Your task to perform on an android device: Do I have any events today? Image 0: 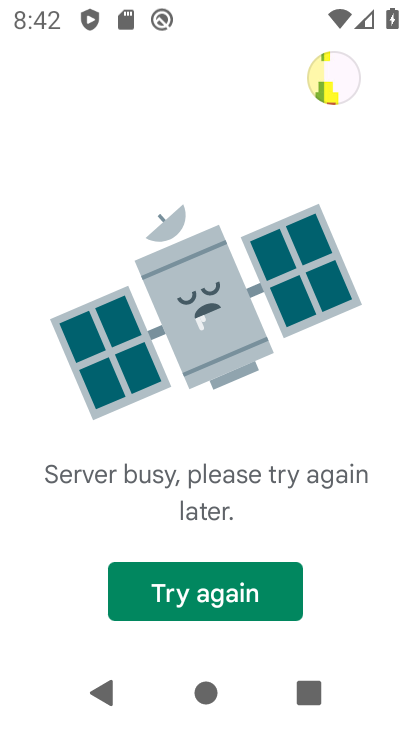
Step 0: press home button
Your task to perform on an android device: Do I have any events today? Image 1: 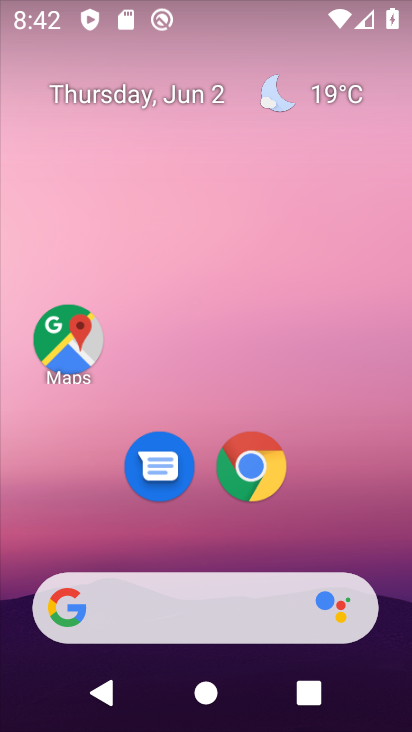
Step 1: drag from (163, 528) to (150, 51)
Your task to perform on an android device: Do I have any events today? Image 2: 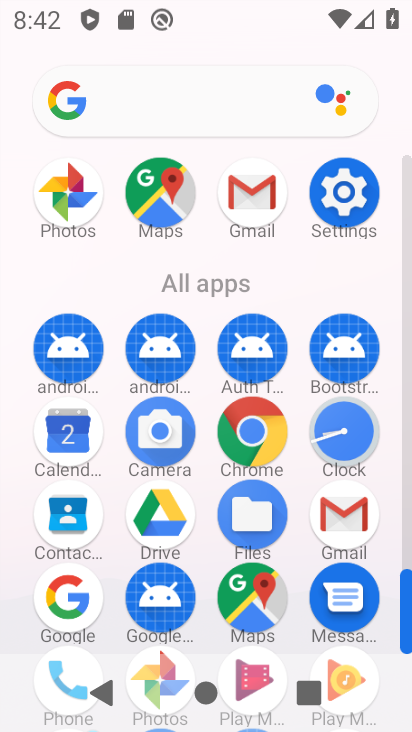
Step 2: click (61, 464)
Your task to perform on an android device: Do I have any events today? Image 3: 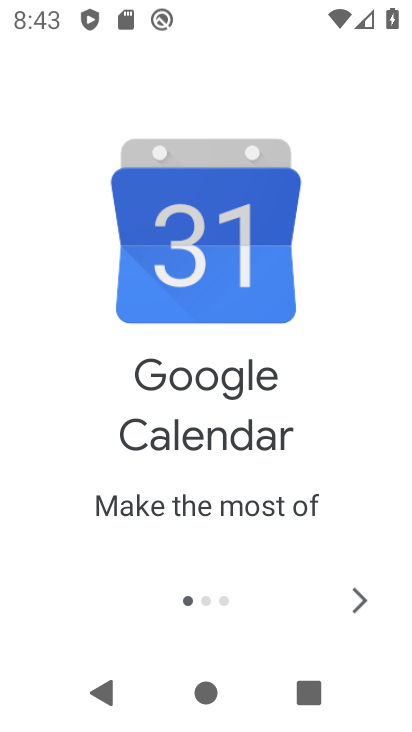
Step 3: click (361, 608)
Your task to perform on an android device: Do I have any events today? Image 4: 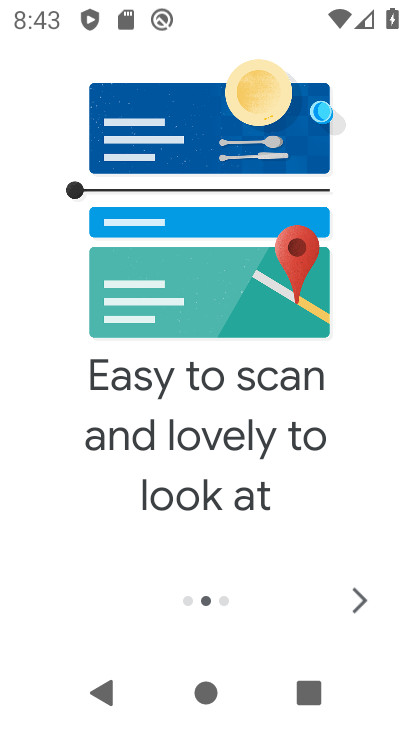
Step 4: click (353, 588)
Your task to perform on an android device: Do I have any events today? Image 5: 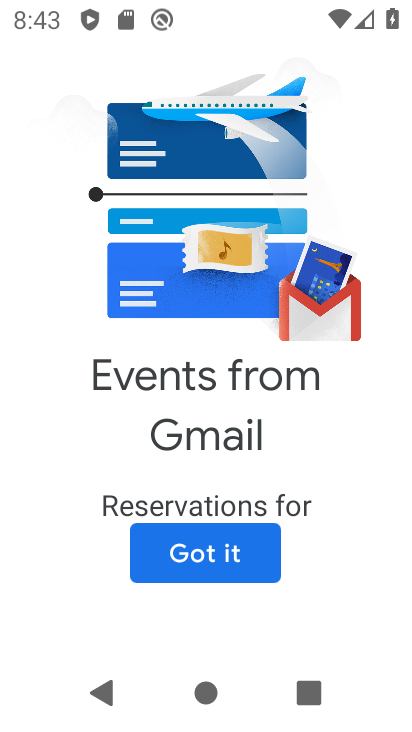
Step 5: click (193, 548)
Your task to perform on an android device: Do I have any events today? Image 6: 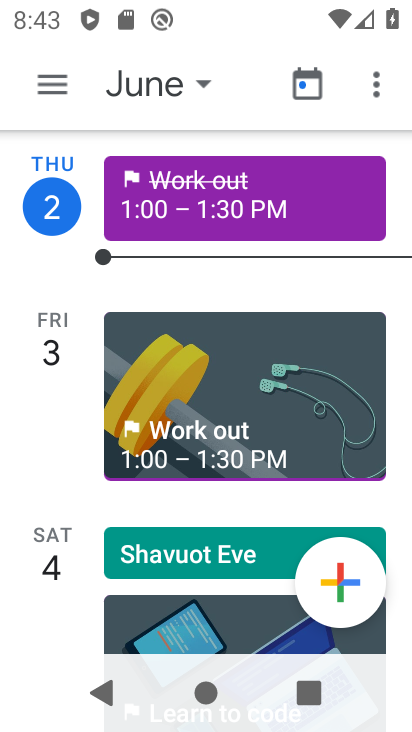
Step 6: click (243, 433)
Your task to perform on an android device: Do I have any events today? Image 7: 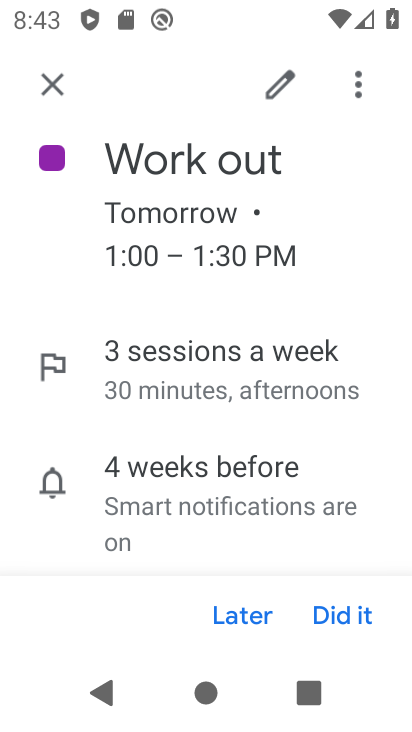
Step 7: task complete